Your task to perform on an android device: star an email in the gmail app Image 0: 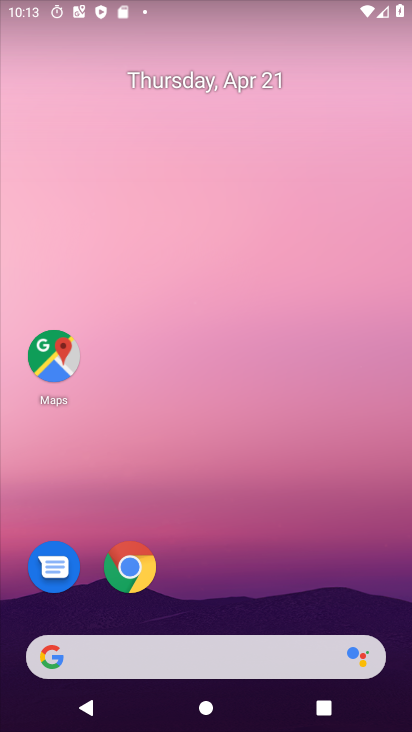
Step 0: click (147, 564)
Your task to perform on an android device: star an email in the gmail app Image 1: 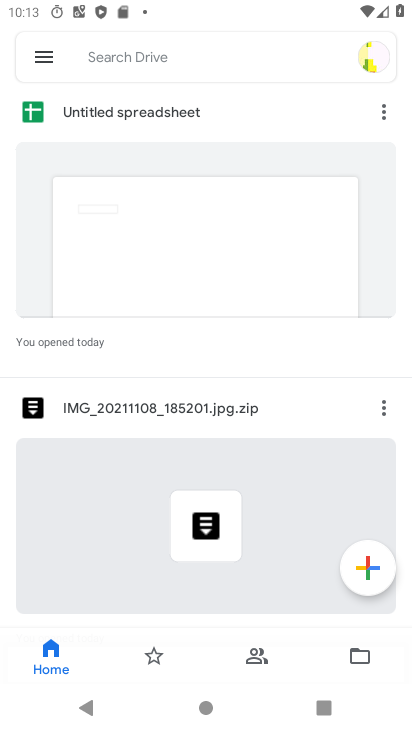
Step 1: press home button
Your task to perform on an android device: star an email in the gmail app Image 2: 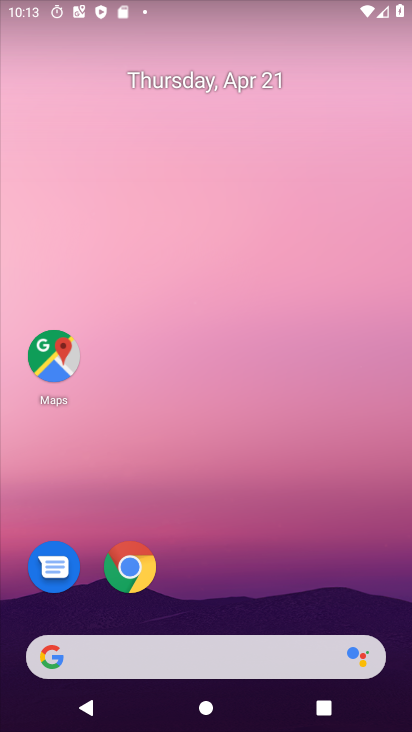
Step 2: drag from (189, 593) to (211, 75)
Your task to perform on an android device: star an email in the gmail app Image 3: 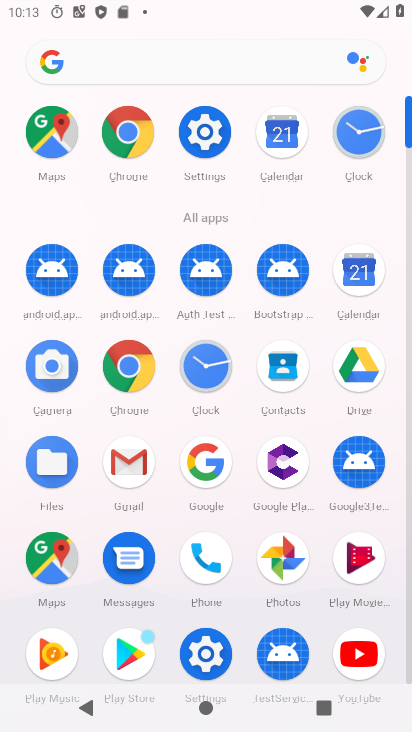
Step 3: click (125, 463)
Your task to perform on an android device: star an email in the gmail app Image 4: 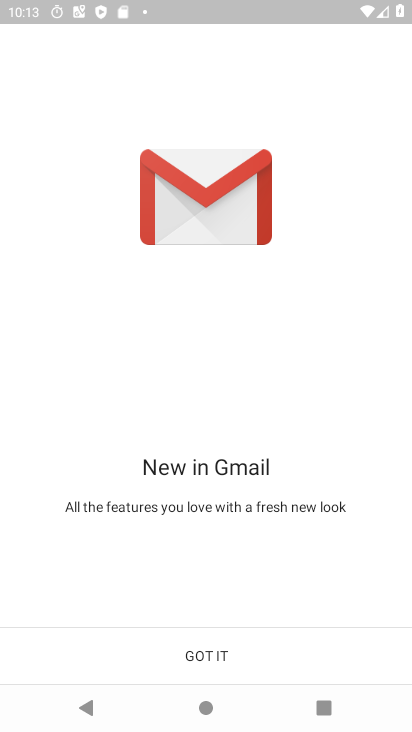
Step 4: click (269, 658)
Your task to perform on an android device: star an email in the gmail app Image 5: 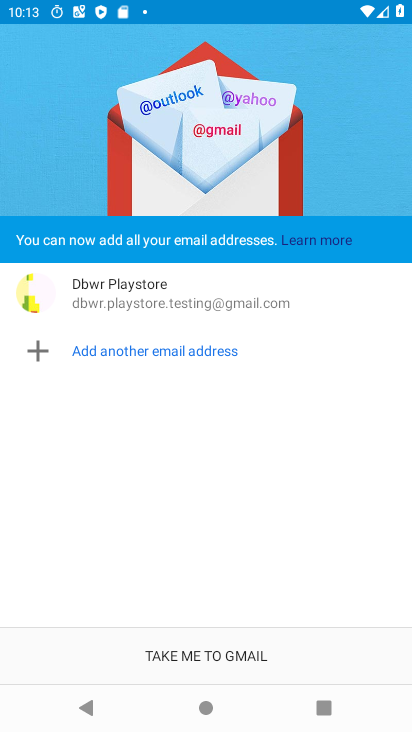
Step 5: click (265, 646)
Your task to perform on an android device: star an email in the gmail app Image 6: 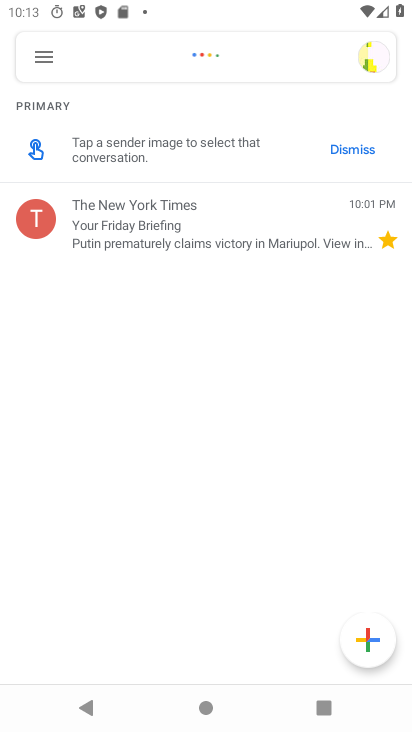
Step 6: click (50, 59)
Your task to perform on an android device: star an email in the gmail app Image 7: 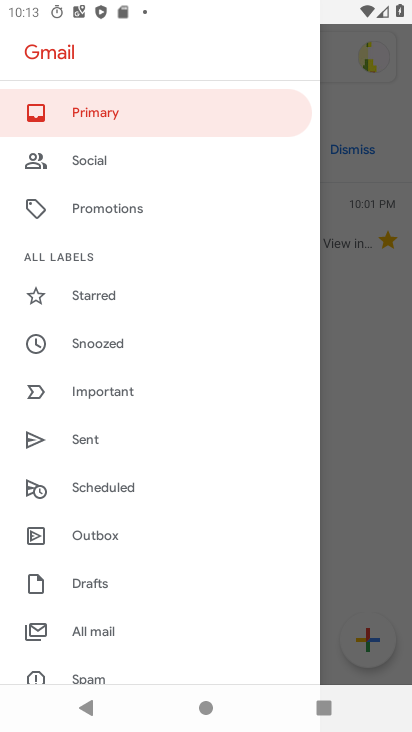
Step 7: click (96, 638)
Your task to perform on an android device: star an email in the gmail app Image 8: 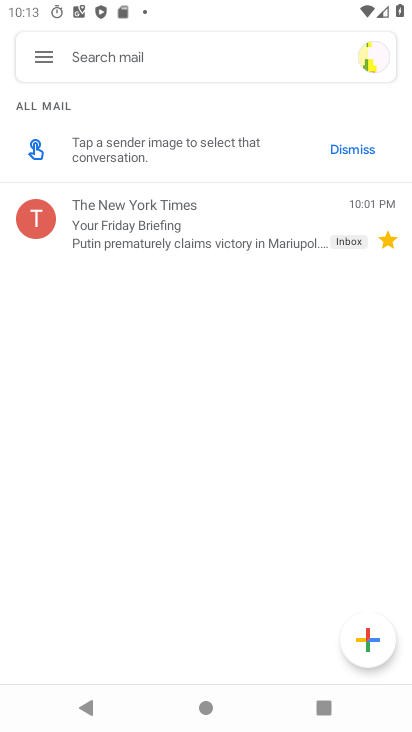
Step 8: task complete